Your task to perform on an android device: Search for seafood restaurants on Google Maps Image 0: 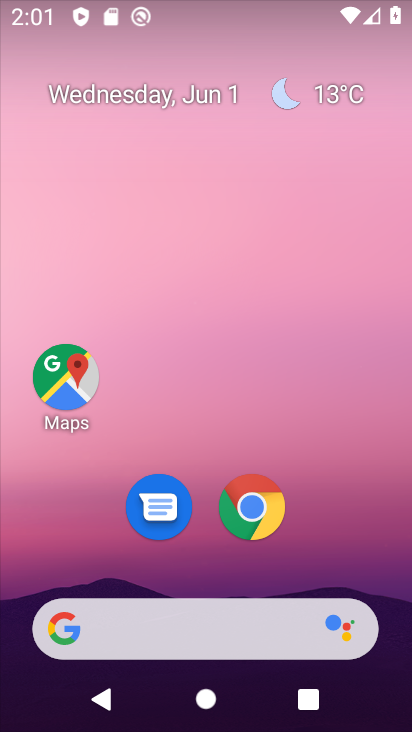
Step 0: click (67, 381)
Your task to perform on an android device: Search for seafood restaurants on Google Maps Image 1: 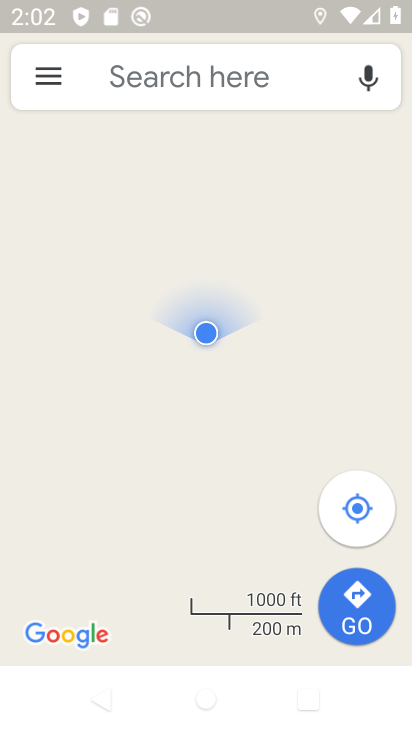
Step 1: click (125, 69)
Your task to perform on an android device: Search for seafood restaurants on Google Maps Image 2: 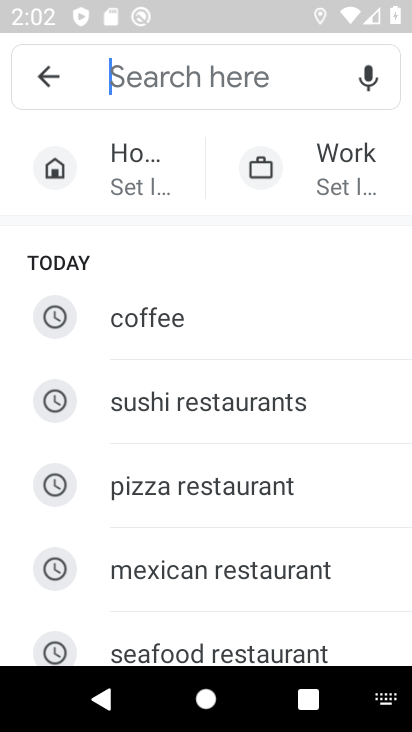
Step 2: type "seafood restaurants"
Your task to perform on an android device: Search for seafood restaurants on Google Maps Image 3: 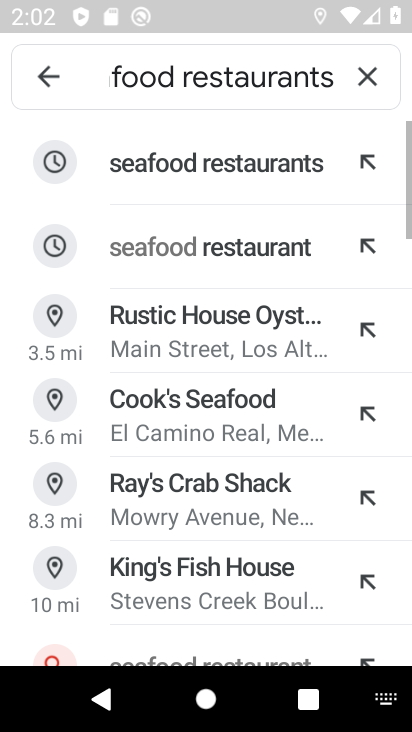
Step 3: click (200, 164)
Your task to perform on an android device: Search for seafood restaurants on Google Maps Image 4: 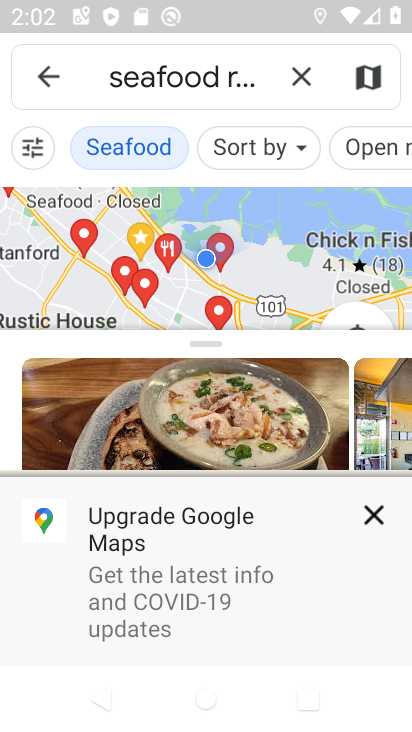
Step 4: task complete